Your task to perform on an android device: Open Google Maps Image 0: 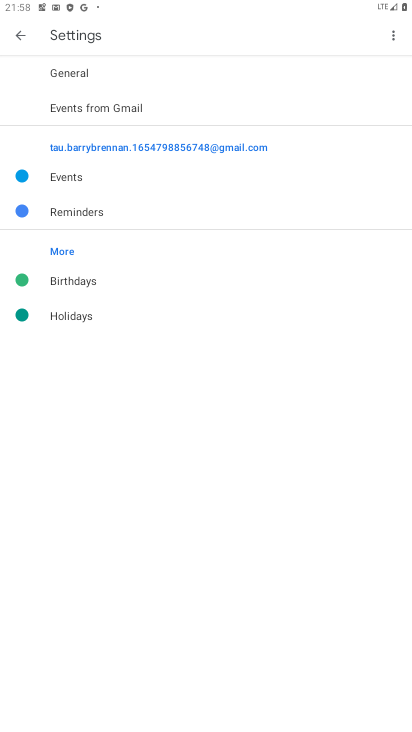
Step 0: press home button
Your task to perform on an android device: Open Google Maps Image 1: 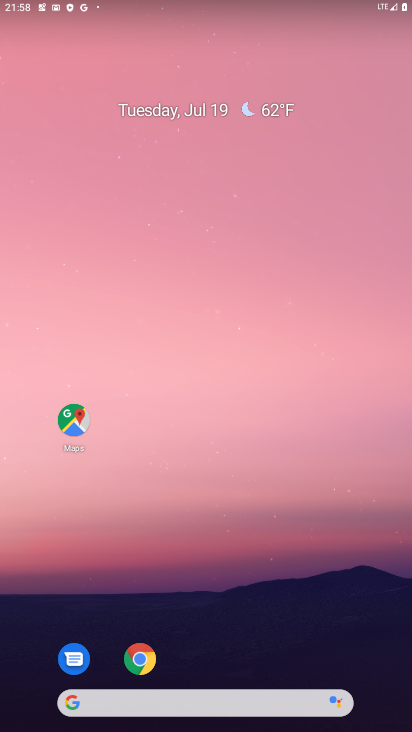
Step 1: drag from (257, 653) to (292, 142)
Your task to perform on an android device: Open Google Maps Image 2: 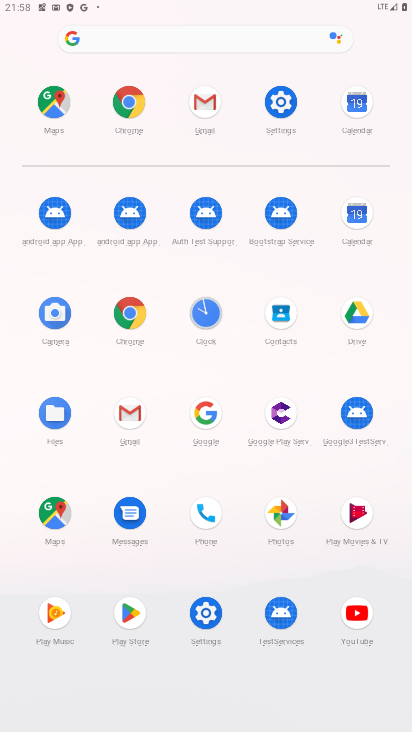
Step 2: click (278, 504)
Your task to perform on an android device: Open Google Maps Image 3: 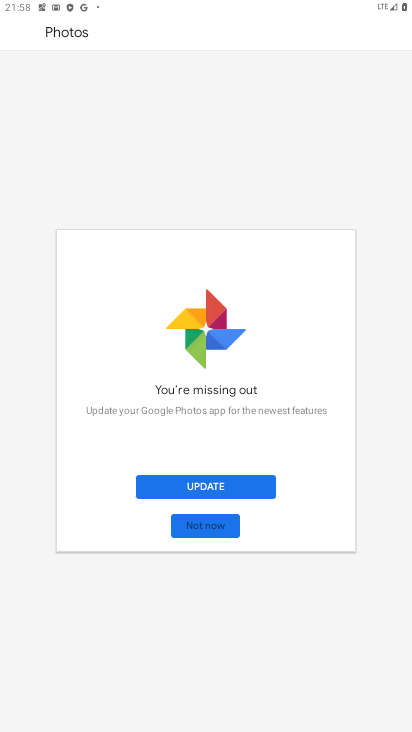
Step 3: click (195, 476)
Your task to perform on an android device: Open Google Maps Image 4: 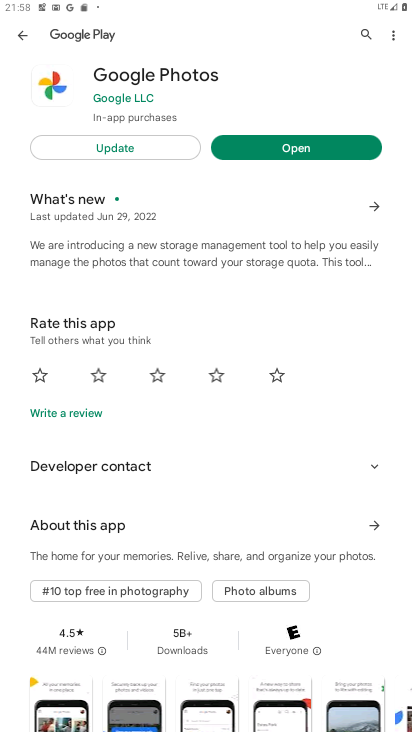
Step 4: click (153, 149)
Your task to perform on an android device: Open Google Maps Image 5: 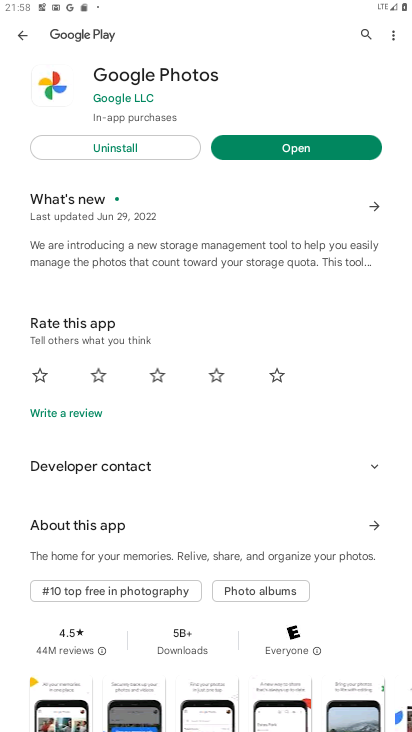
Step 5: click (340, 149)
Your task to perform on an android device: Open Google Maps Image 6: 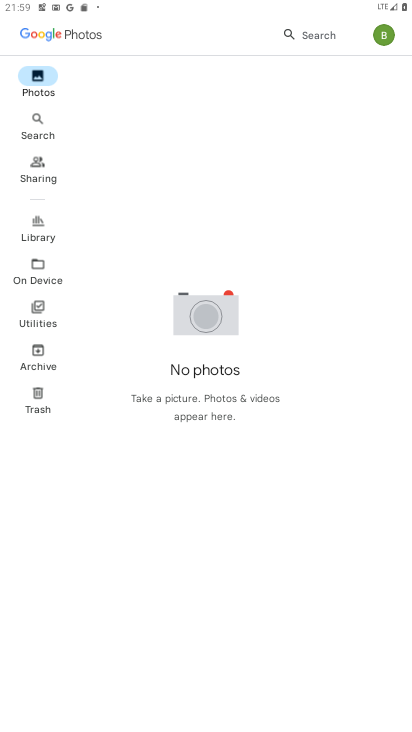
Step 6: task complete